Your task to perform on an android device: Show me the alarms in the clock app Image 0: 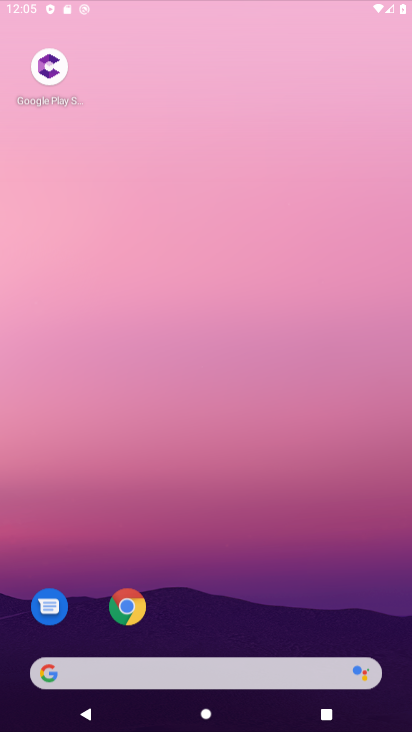
Step 0: drag from (344, 303) to (407, 112)
Your task to perform on an android device: Show me the alarms in the clock app Image 1: 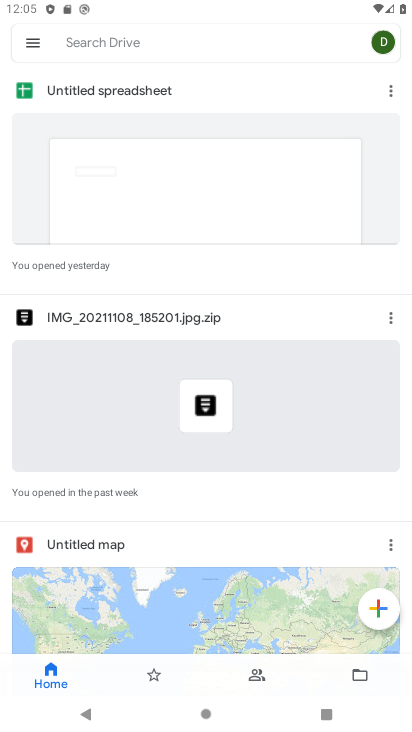
Step 1: press home button
Your task to perform on an android device: Show me the alarms in the clock app Image 2: 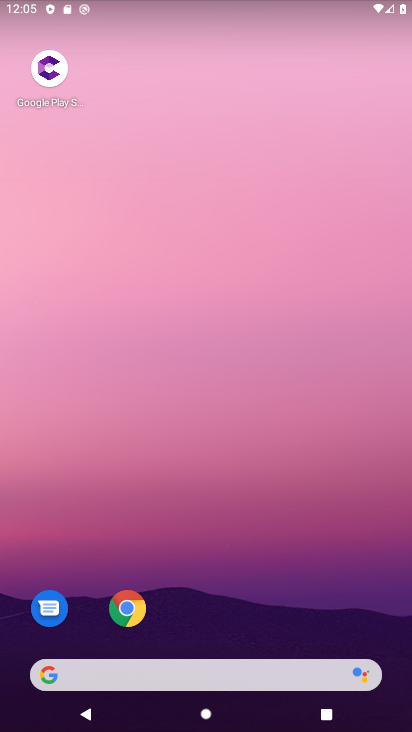
Step 2: drag from (265, 699) to (402, 152)
Your task to perform on an android device: Show me the alarms in the clock app Image 3: 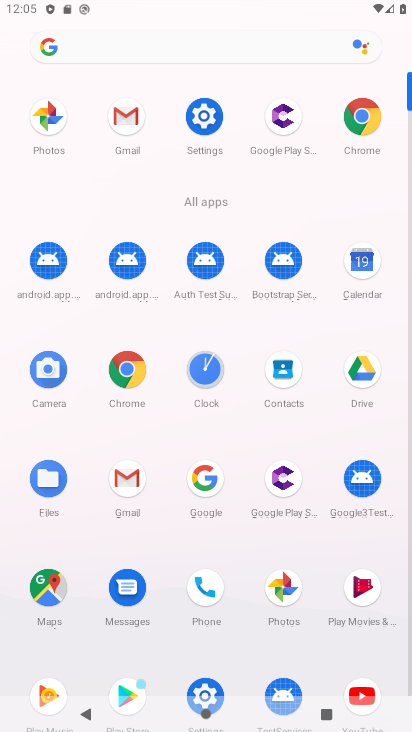
Step 3: click (218, 359)
Your task to perform on an android device: Show me the alarms in the clock app Image 4: 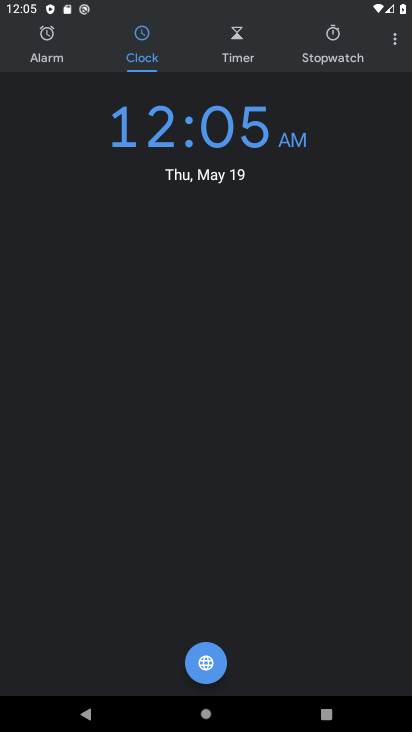
Step 4: click (55, 48)
Your task to perform on an android device: Show me the alarms in the clock app Image 5: 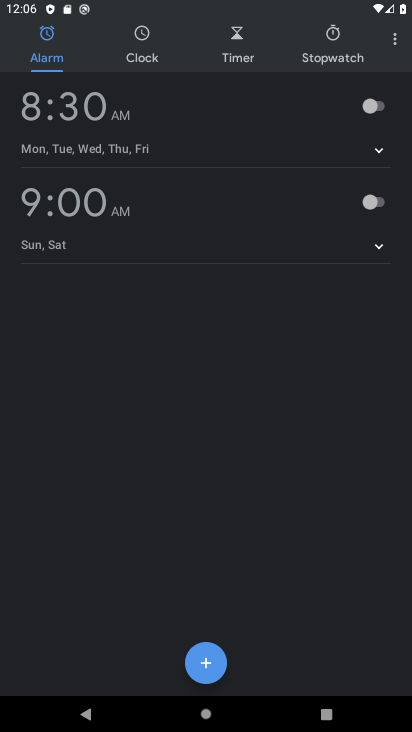
Step 5: task complete